Your task to perform on an android device: check storage Image 0: 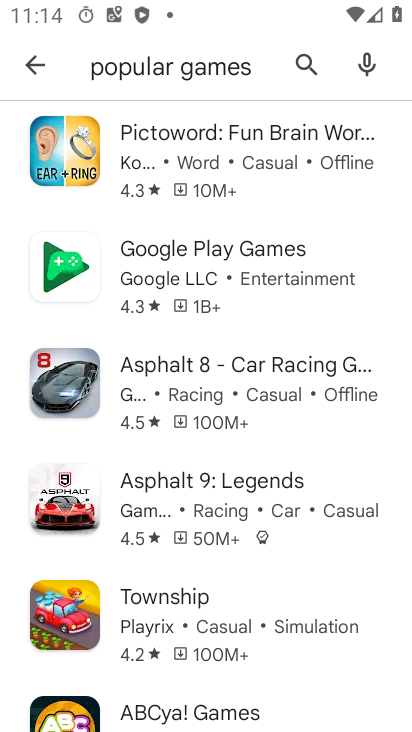
Step 0: press home button
Your task to perform on an android device: check storage Image 1: 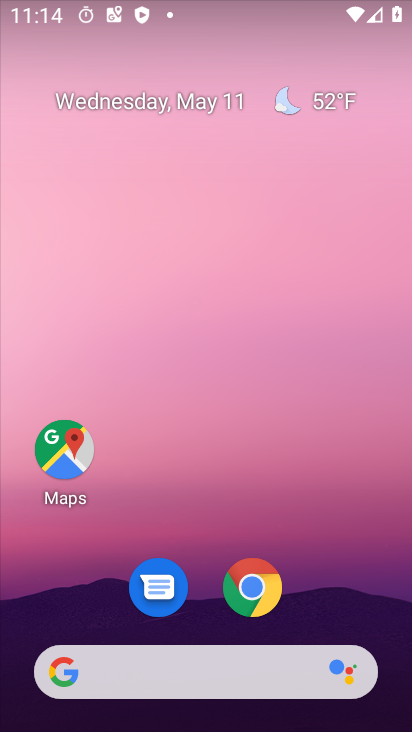
Step 1: drag from (199, 723) to (330, 267)
Your task to perform on an android device: check storage Image 2: 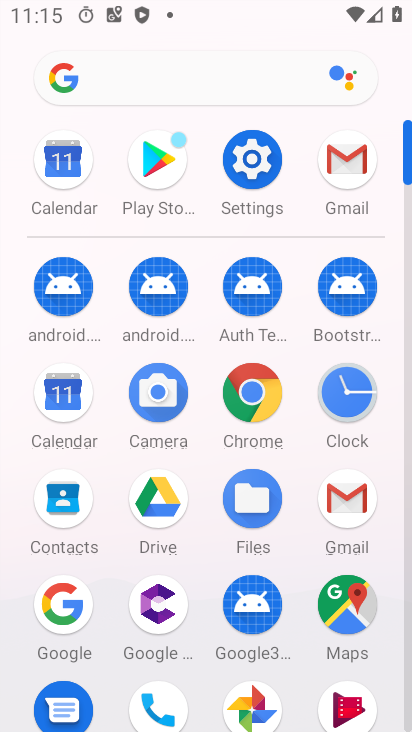
Step 2: click (254, 183)
Your task to perform on an android device: check storage Image 3: 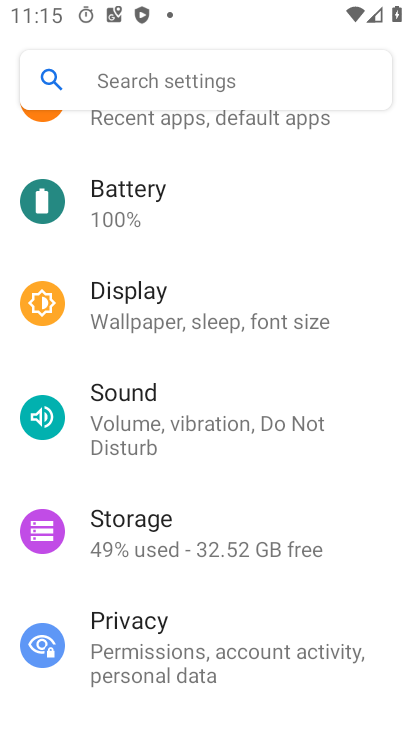
Step 3: click (183, 83)
Your task to perform on an android device: check storage Image 4: 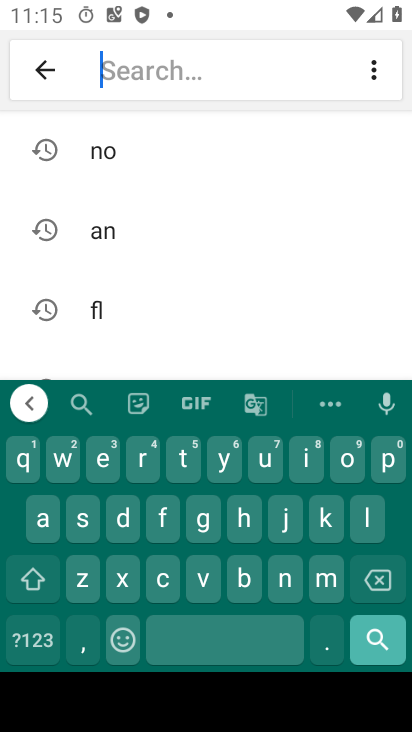
Step 4: click (77, 525)
Your task to perform on an android device: check storage Image 5: 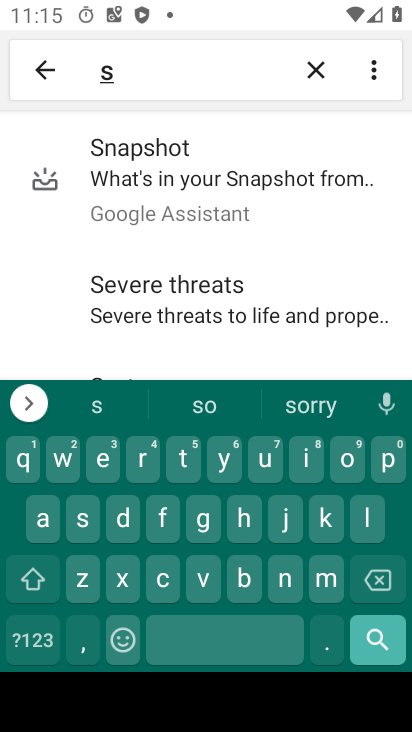
Step 5: click (183, 474)
Your task to perform on an android device: check storage Image 6: 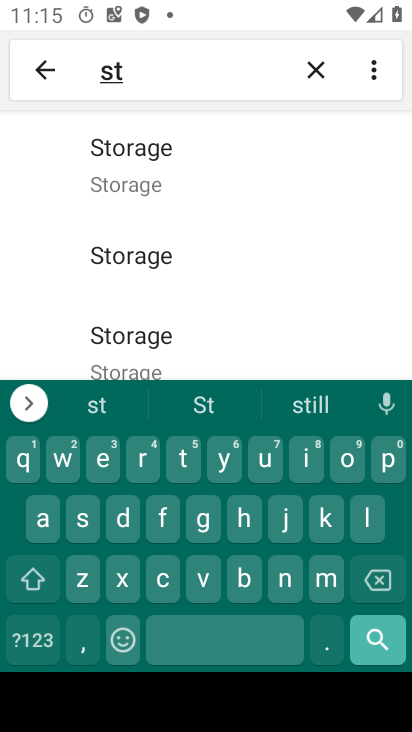
Step 6: click (189, 182)
Your task to perform on an android device: check storage Image 7: 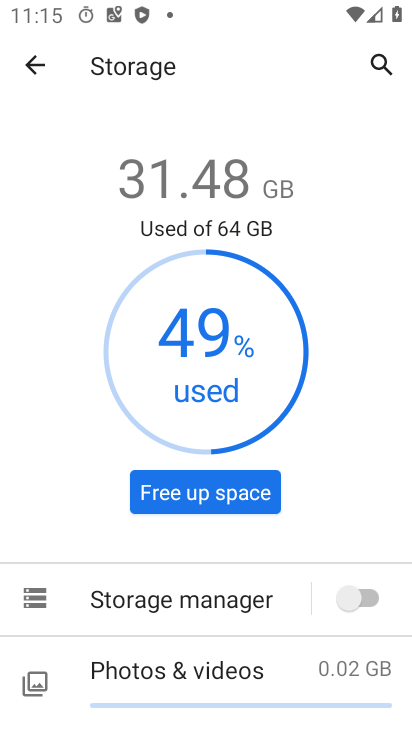
Step 7: task complete